Your task to perform on an android device: Open internet settings Image 0: 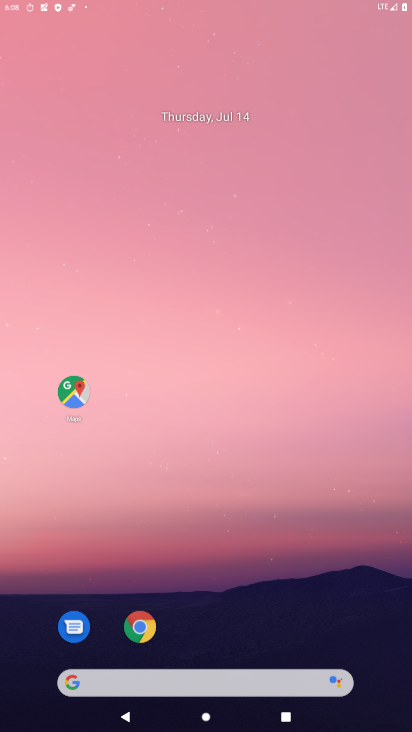
Step 0: drag from (301, 106) to (297, 41)
Your task to perform on an android device: Open internet settings Image 1: 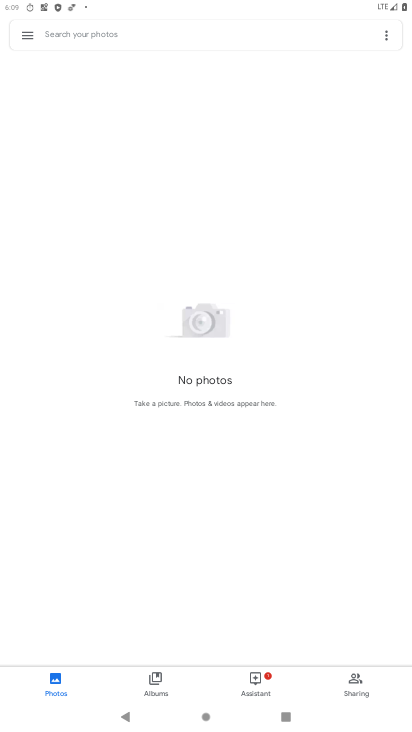
Step 1: press home button
Your task to perform on an android device: Open internet settings Image 2: 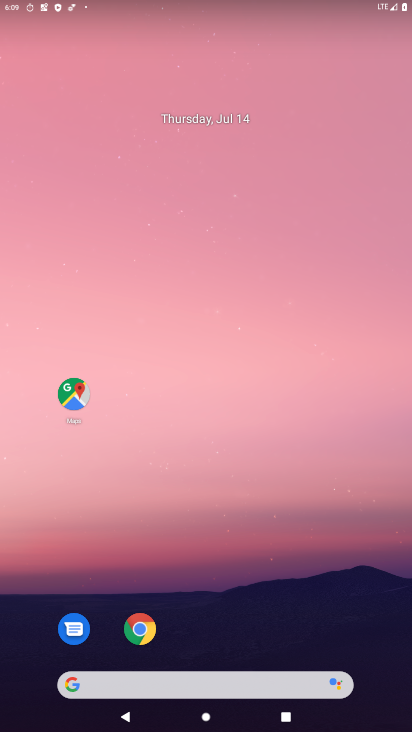
Step 2: drag from (250, 615) to (226, 21)
Your task to perform on an android device: Open internet settings Image 3: 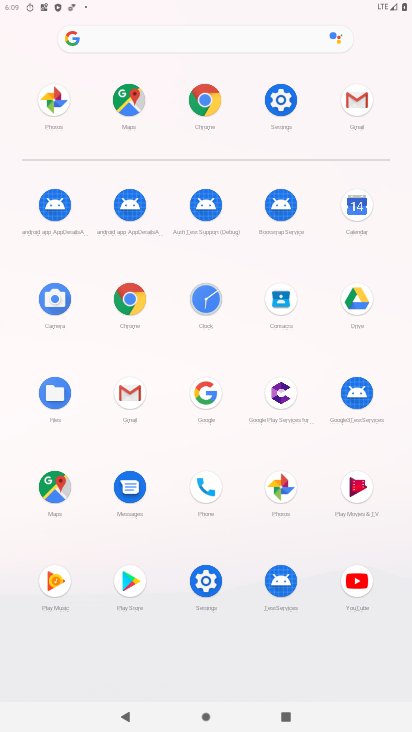
Step 3: drag from (226, 4) to (101, 173)
Your task to perform on an android device: Open internet settings Image 4: 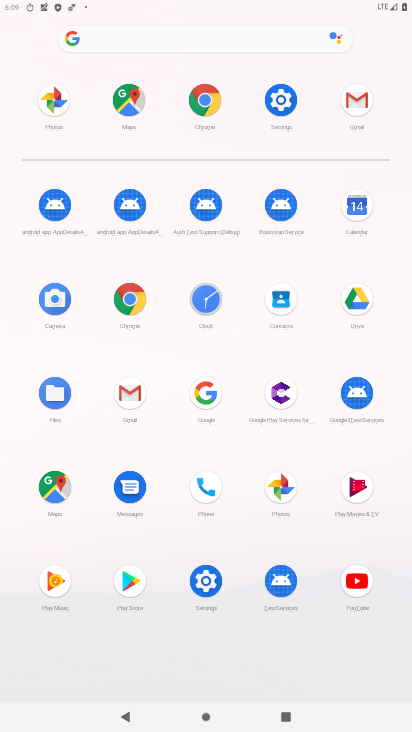
Step 4: click (279, 105)
Your task to perform on an android device: Open internet settings Image 5: 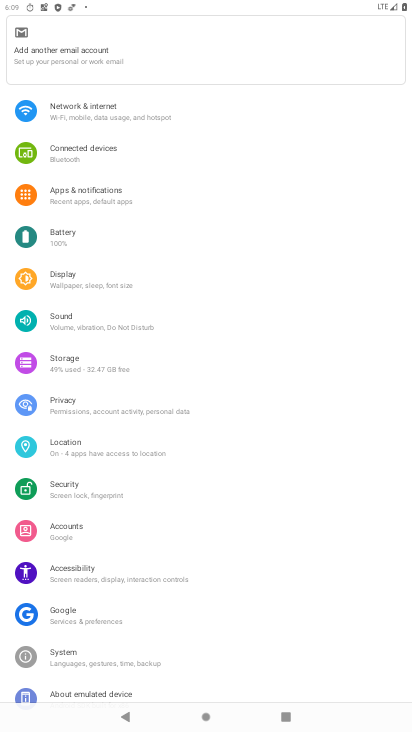
Step 5: click (127, 109)
Your task to perform on an android device: Open internet settings Image 6: 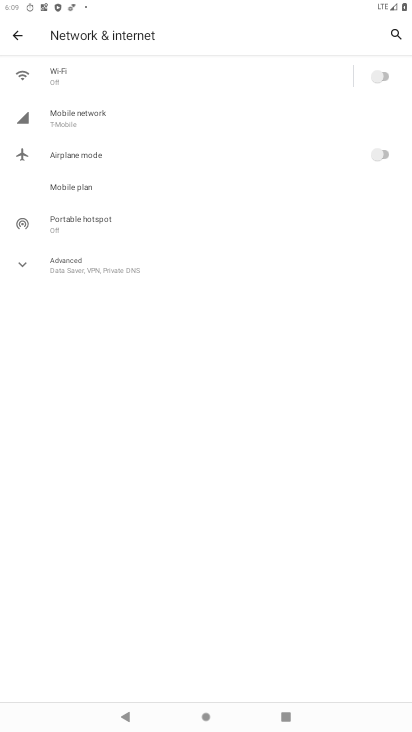
Step 6: task complete